Your task to perform on an android device: Open eBay Image 0: 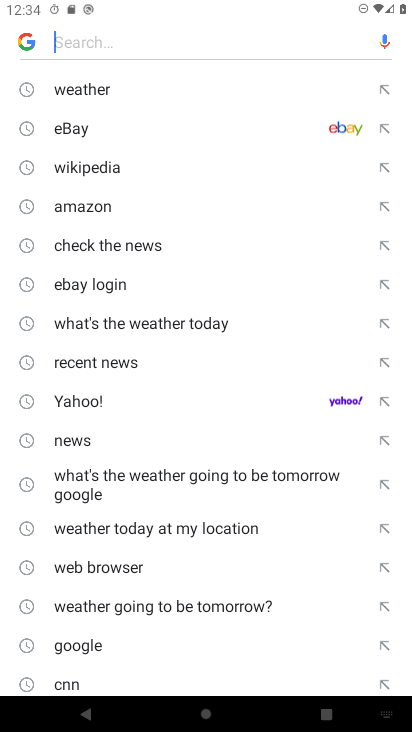
Step 0: press home button
Your task to perform on an android device: Open eBay Image 1: 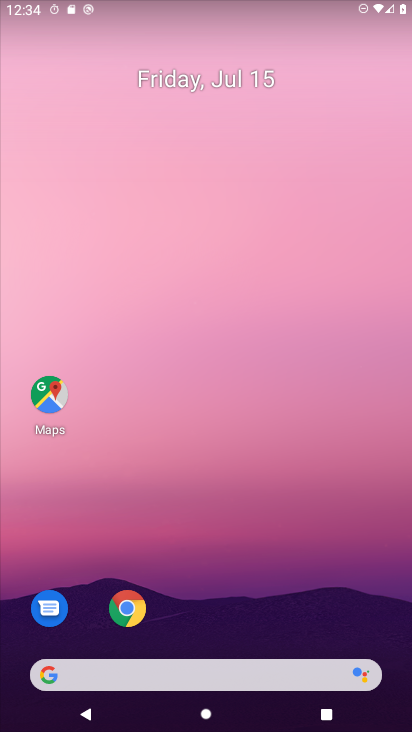
Step 1: drag from (272, 618) to (305, 58)
Your task to perform on an android device: Open eBay Image 2: 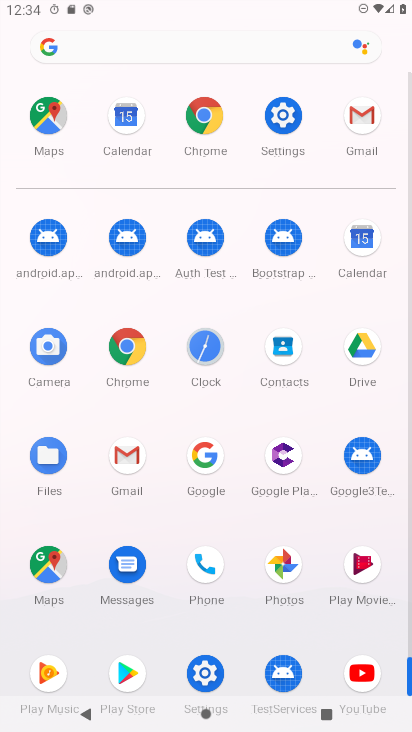
Step 2: click (138, 348)
Your task to perform on an android device: Open eBay Image 3: 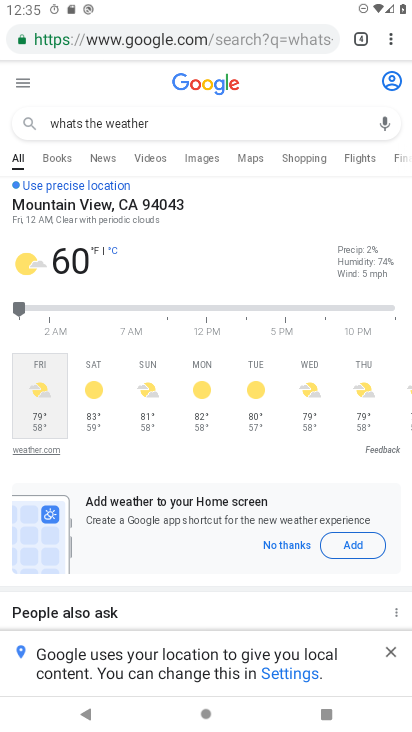
Step 3: drag from (384, 32) to (317, 75)
Your task to perform on an android device: Open eBay Image 4: 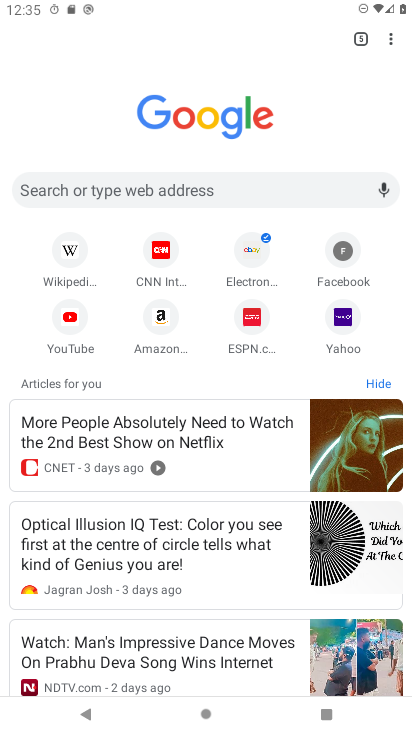
Step 4: click (255, 241)
Your task to perform on an android device: Open eBay Image 5: 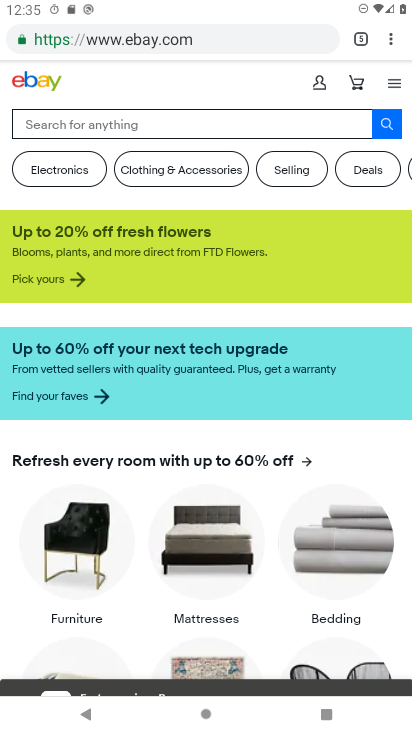
Step 5: task complete